Your task to perform on an android device: Open Youtube and go to "Your channel" Image 0: 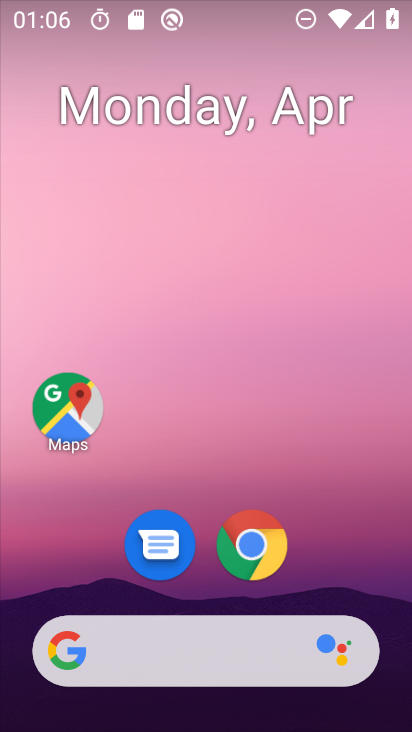
Step 0: drag from (305, 553) to (286, 255)
Your task to perform on an android device: Open Youtube and go to "Your channel" Image 1: 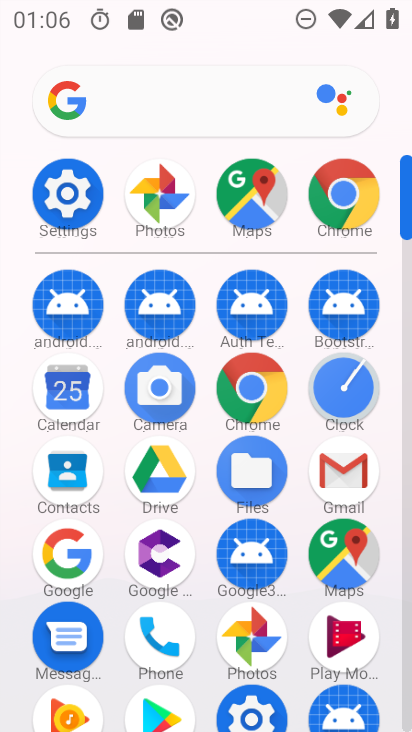
Step 1: drag from (302, 666) to (283, 249)
Your task to perform on an android device: Open Youtube and go to "Your channel" Image 2: 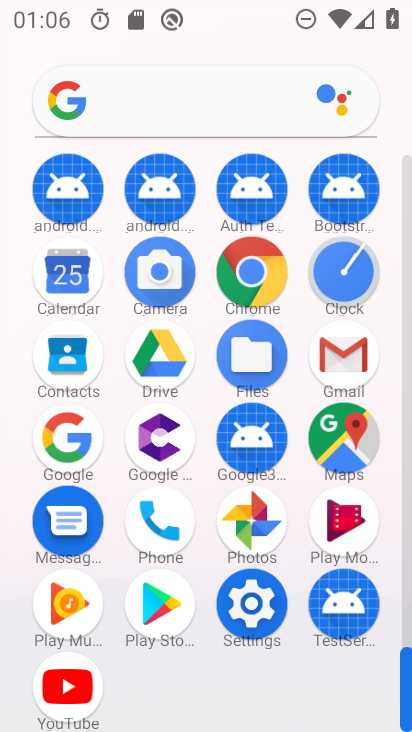
Step 2: click (66, 686)
Your task to perform on an android device: Open Youtube and go to "Your channel" Image 3: 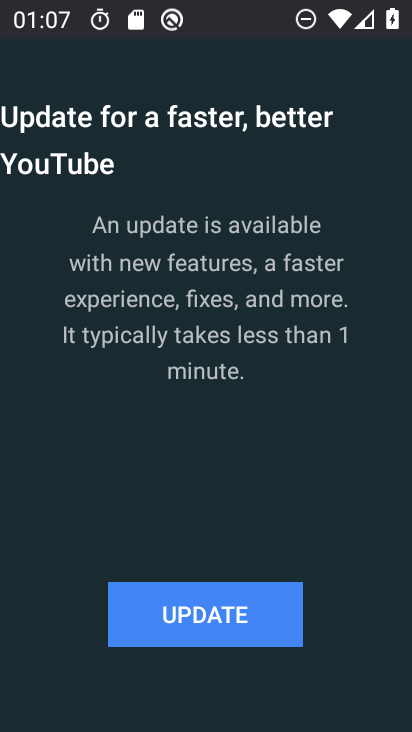
Step 3: task complete